Your task to perform on an android device: What's on my calendar today? Image 0: 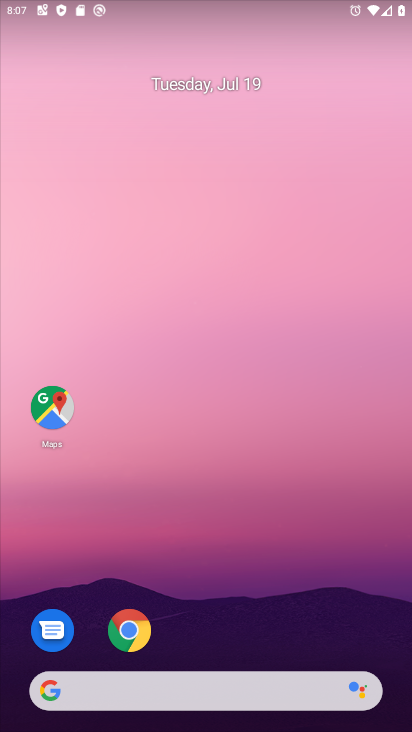
Step 0: drag from (175, 641) to (175, 213)
Your task to perform on an android device: What's on my calendar today? Image 1: 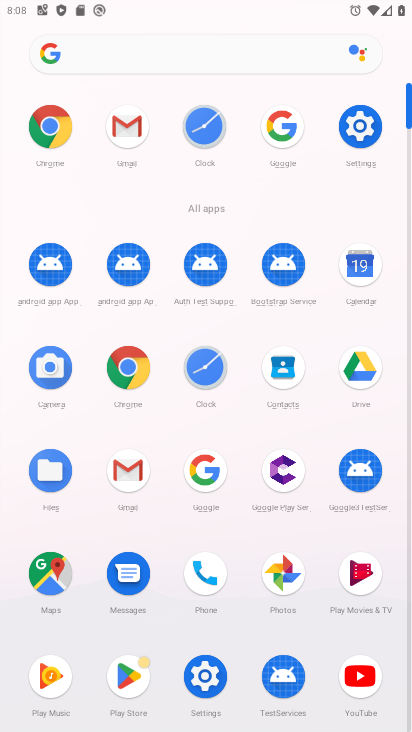
Step 1: click (356, 280)
Your task to perform on an android device: What's on my calendar today? Image 2: 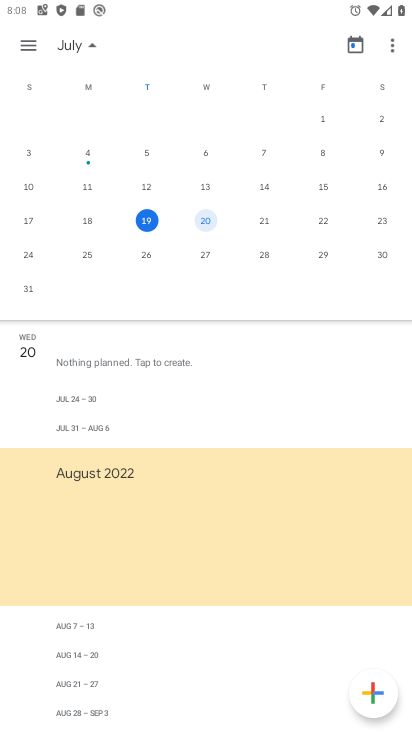
Step 2: task complete